Your task to perform on an android device: visit the assistant section in the google photos Image 0: 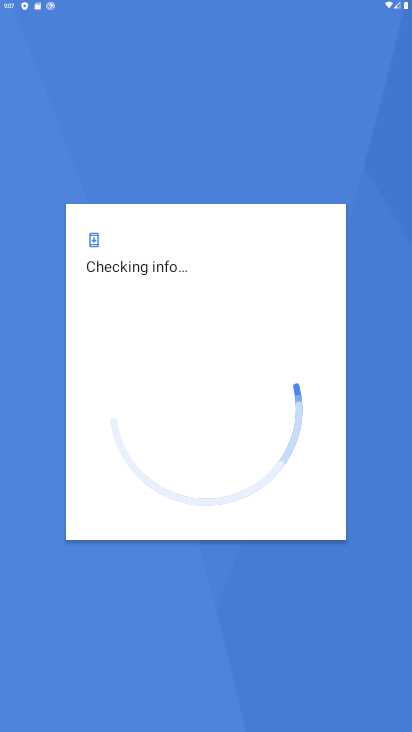
Step 0: press home button
Your task to perform on an android device: visit the assistant section in the google photos Image 1: 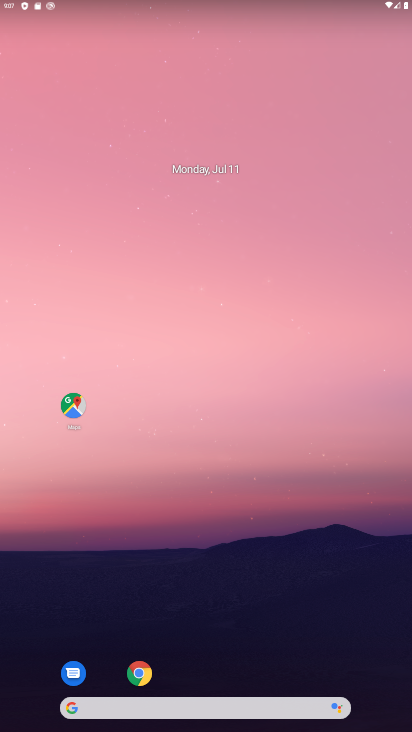
Step 1: press home button
Your task to perform on an android device: visit the assistant section in the google photos Image 2: 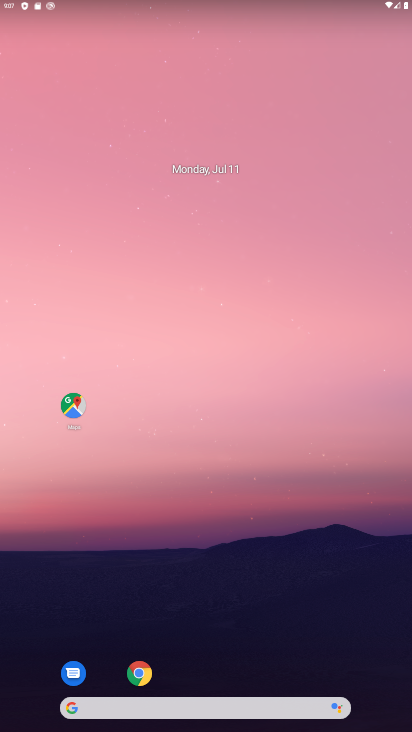
Step 2: drag from (358, 653) to (321, 186)
Your task to perform on an android device: visit the assistant section in the google photos Image 3: 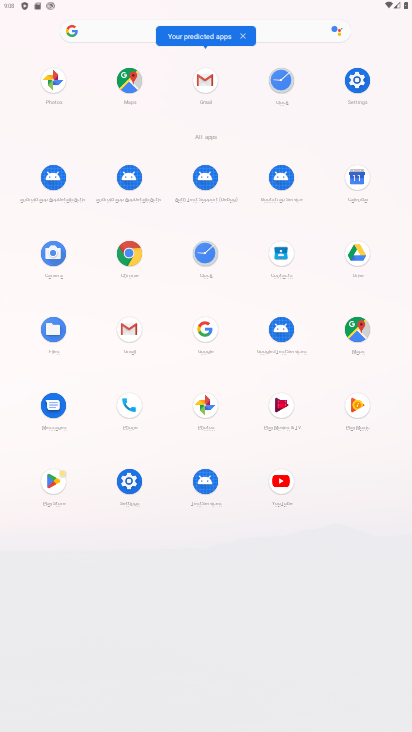
Step 3: click (53, 92)
Your task to perform on an android device: visit the assistant section in the google photos Image 4: 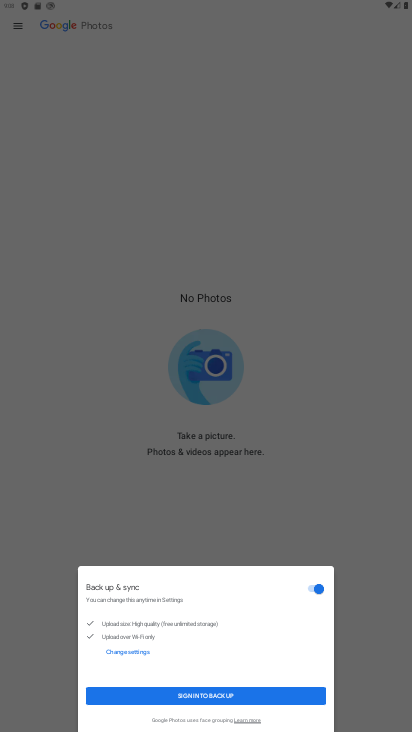
Step 4: click (280, 691)
Your task to perform on an android device: visit the assistant section in the google photos Image 5: 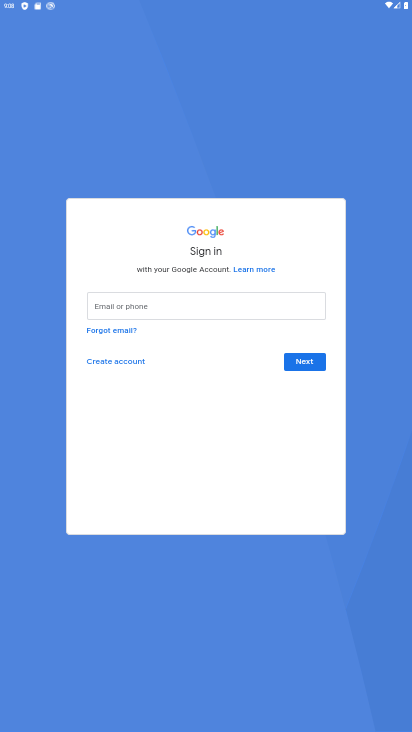
Step 5: task complete